Your task to perform on an android device: see creations saved in the google photos Image 0: 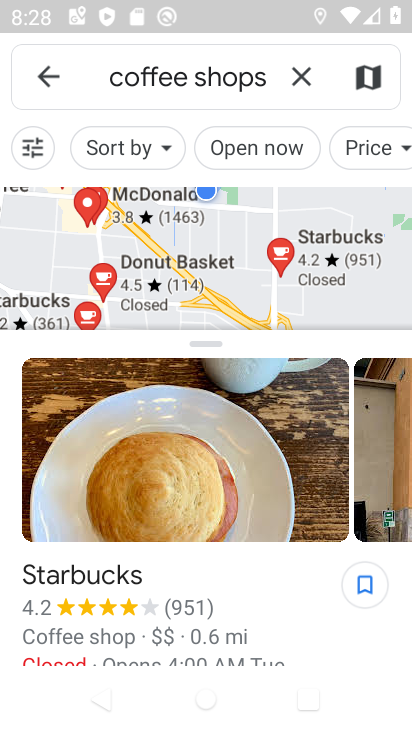
Step 0: press home button
Your task to perform on an android device: see creations saved in the google photos Image 1: 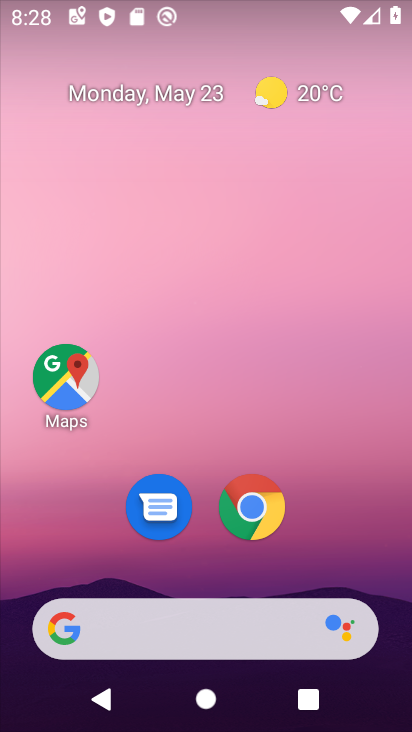
Step 1: drag from (396, 523) to (349, 17)
Your task to perform on an android device: see creations saved in the google photos Image 2: 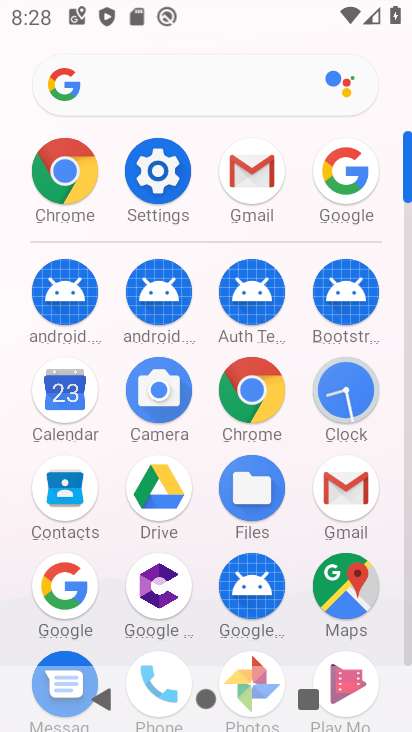
Step 2: click (408, 517)
Your task to perform on an android device: see creations saved in the google photos Image 3: 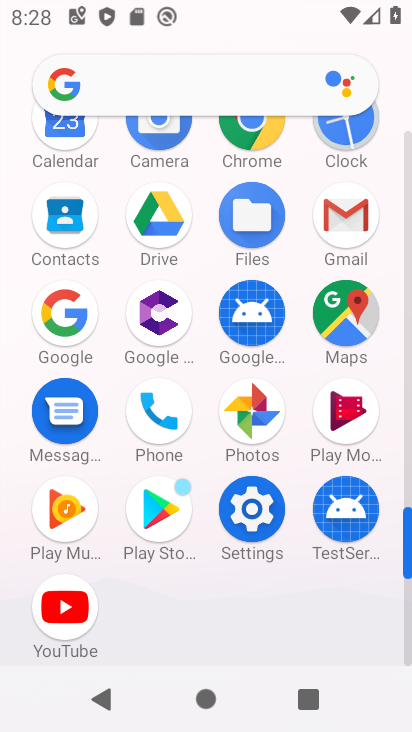
Step 3: click (252, 423)
Your task to perform on an android device: see creations saved in the google photos Image 4: 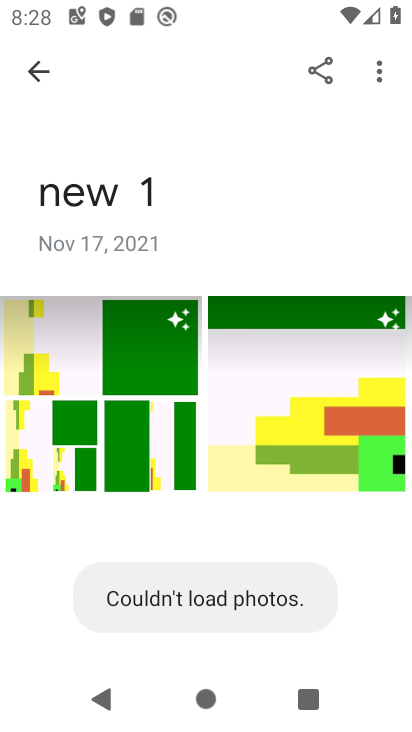
Step 4: click (41, 76)
Your task to perform on an android device: see creations saved in the google photos Image 5: 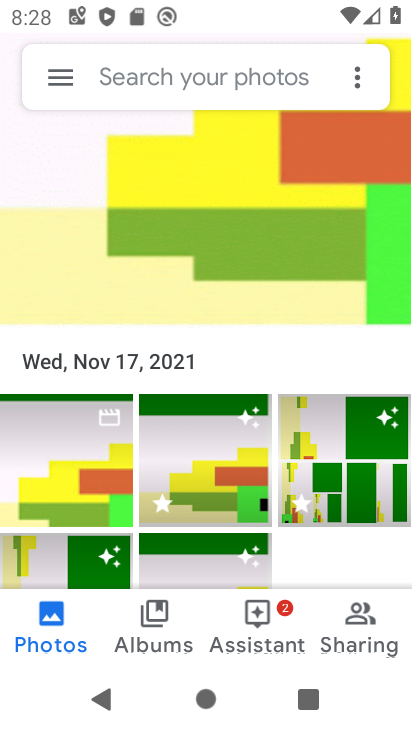
Step 5: click (115, 77)
Your task to perform on an android device: see creations saved in the google photos Image 6: 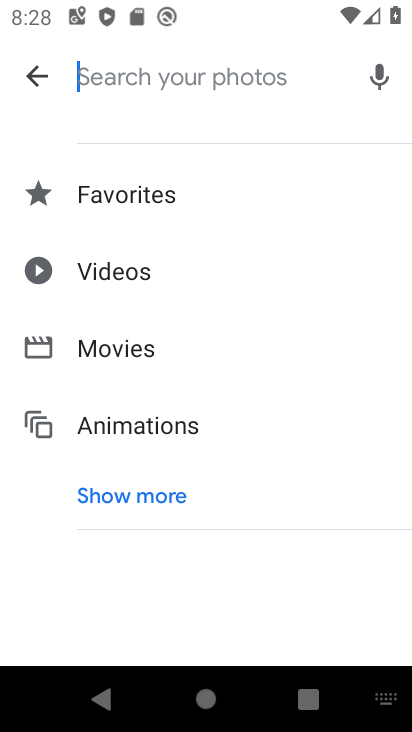
Step 6: click (130, 494)
Your task to perform on an android device: see creations saved in the google photos Image 7: 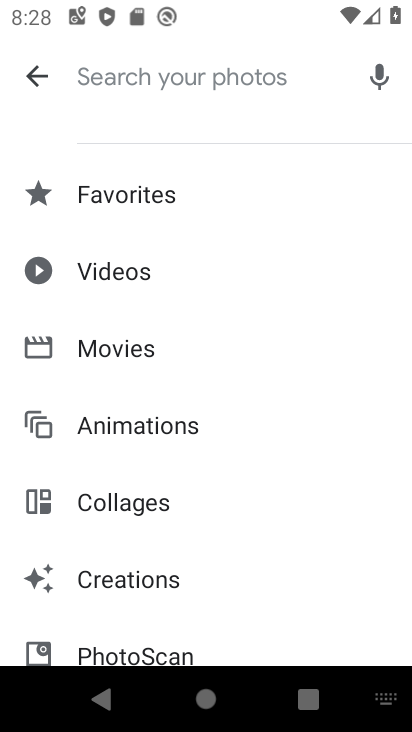
Step 7: click (136, 582)
Your task to perform on an android device: see creations saved in the google photos Image 8: 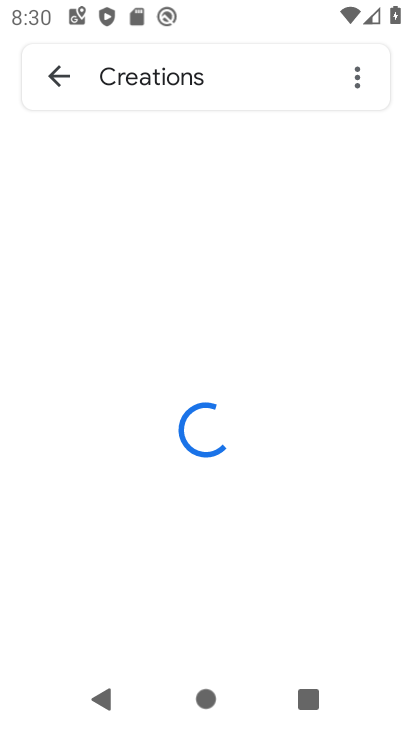
Step 8: task complete